Your task to perform on an android device: check the backup settings in the google photos Image 0: 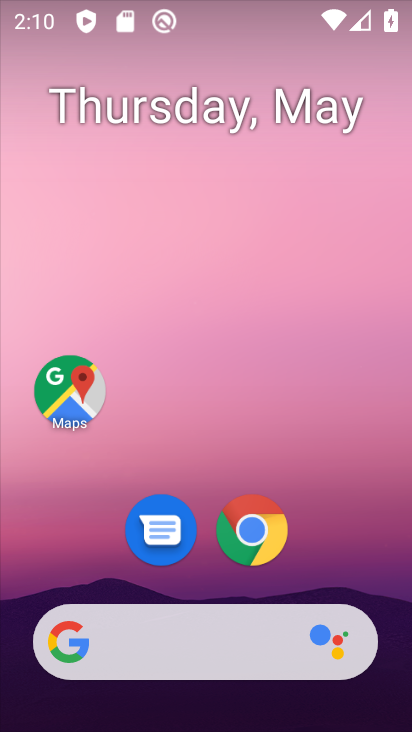
Step 0: press home button
Your task to perform on an android device: check the backup settings in the google photos Image 1: 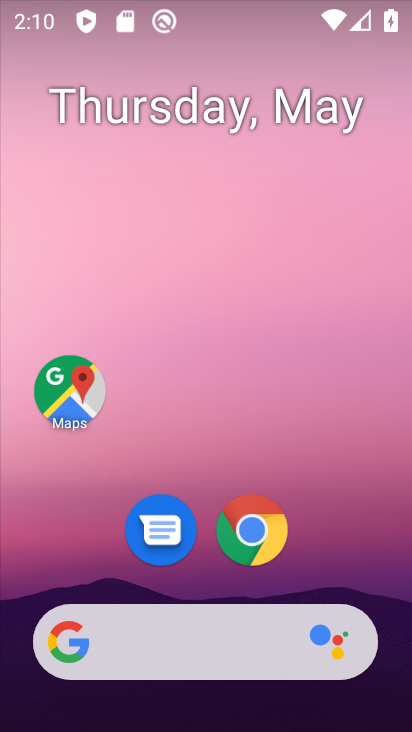
Step 1: drag from (200, 647) to (328, 156)
Your task to perform on an android device: check the backup settings in the google photos Image 2: 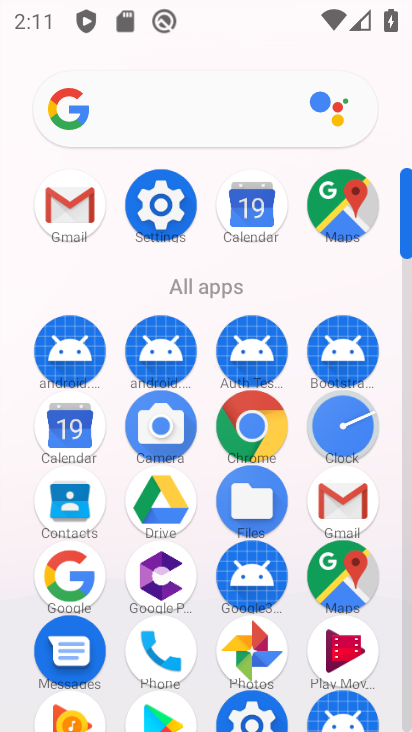
Step 2: drag from (199, 599) to (290, 281)
Your task to perform on an android device: check the backup settings in the google photos Image 3: 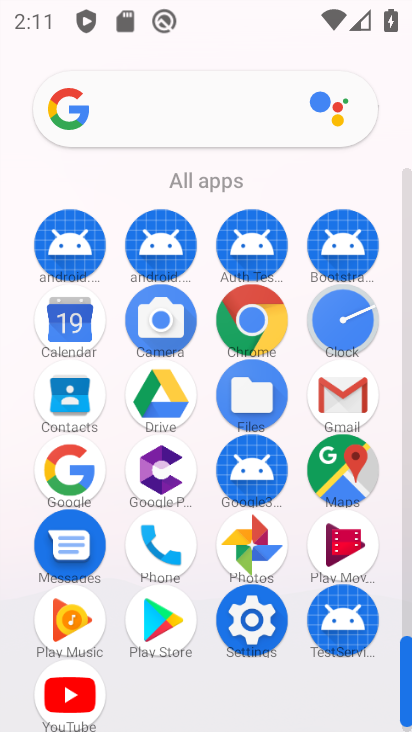
Step 3: click (256, 526)
Your task to perform on an android device: check the backup settings in the google photos Image 4: 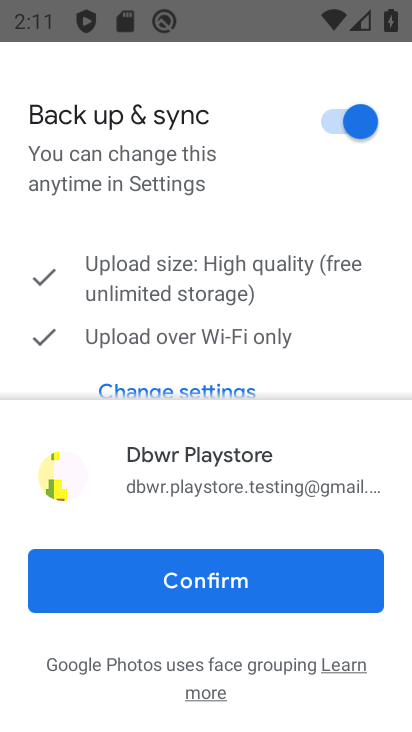
Step 4: click (193, 572)
Your task to perform on an android device: check the backup settings in the google photos Image 5: 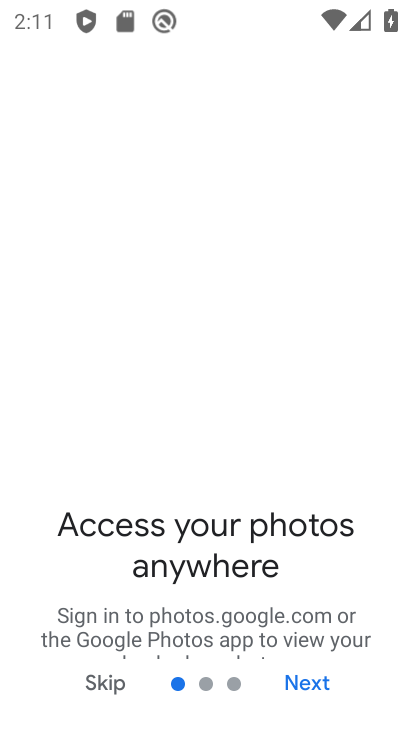
Step 5: click (319, 673)
Your task to perform on an android device: check the backup settings in the google photos Image 6: 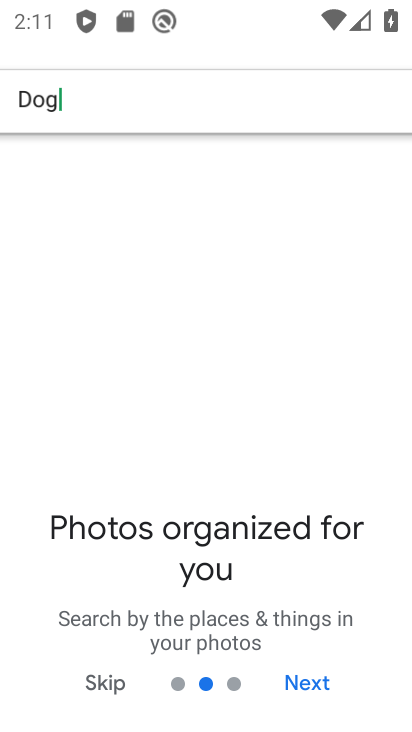
Step 6: click (313, 681)
Your task to perform on an android device: check the backup settings in the google photos Image 7: 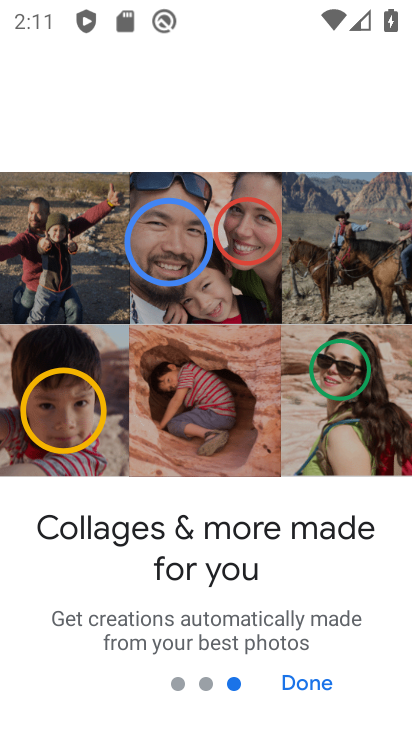
Step 7: click (313, 681)
Your task to perform on an android device: check the backup settings in the google photos Image 8: 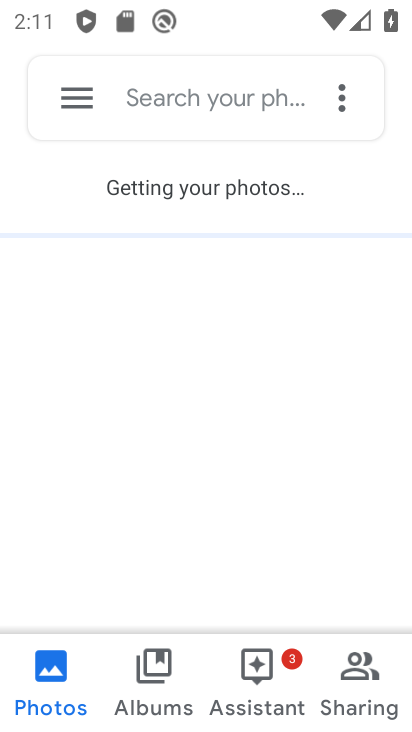
Step 8: click (79, 99)
Your task to perform on an android device: check the backup settings in the google photos Image 9: 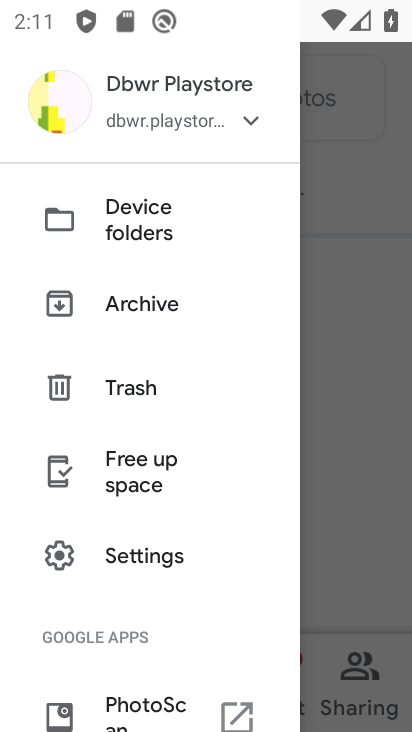
Step 9: click (128, 555)
Your task to perform on an android device: check the backup settings in the google photos Image 10: 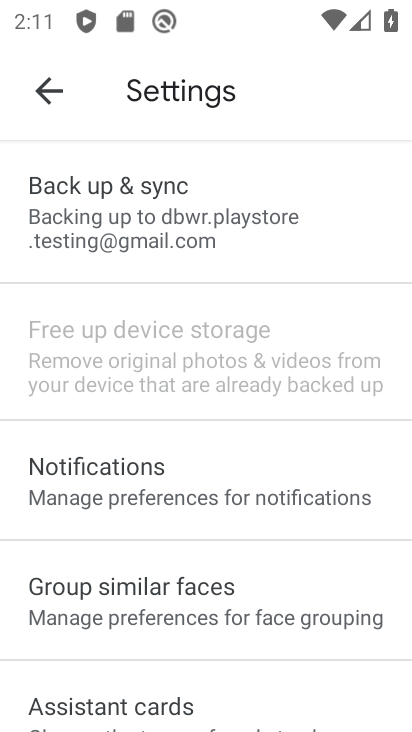
Step 10: click (187, 218)
Your task to perform on an android device: check the backup settings in the google photos Image 11: 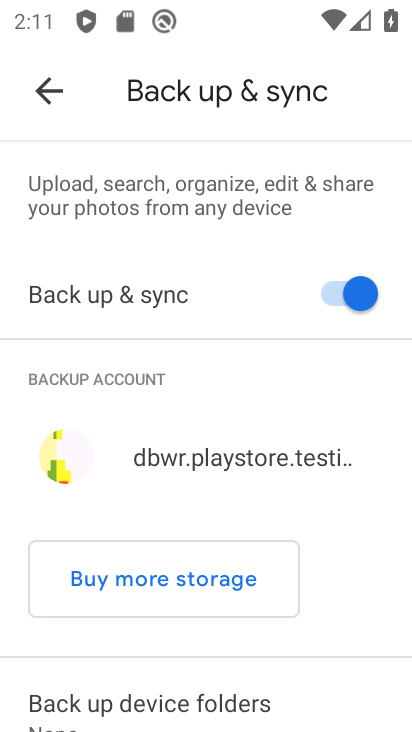
Step 11: task complete